Your task to perform on an android device: turn off improve location accuracy Image 0: 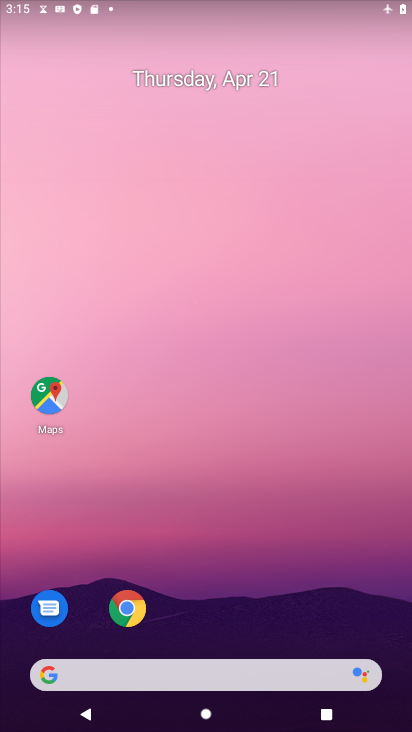
Step 0: drag from (304, 630) to (177, 82)
Your task to perform on an android device: turn off improve location accuracy Image 1: 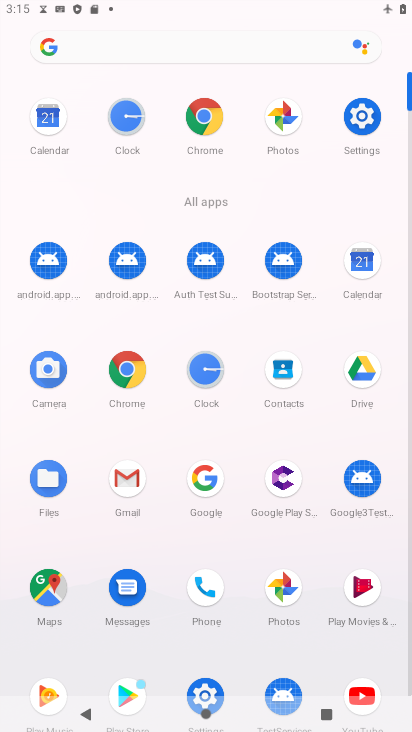
Step 1: click (366, 137)
Your task to perform on an android device: turn off improve location accuracy Image 2: 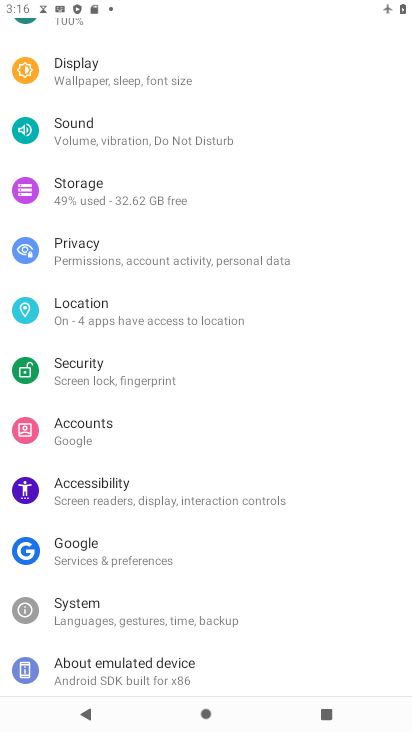
Step 2: click (158, 314)
Your task to perform on an android device: turn off improve location accuracy Image 3: 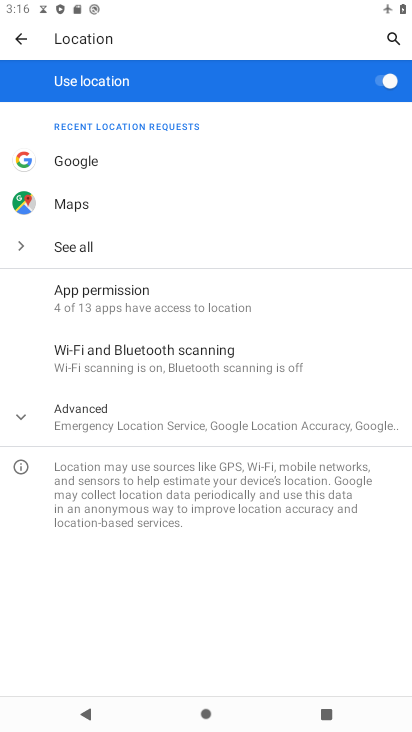
Step 3: click (171, 418)
Your task to perform on an android device: turn off improve location accuracy Image 4: 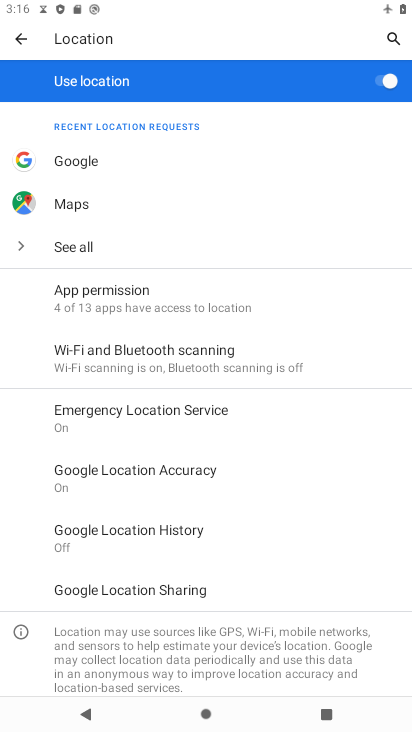
Step 4: click (193, 474)
Your task to perform on an android device: turn off improve location accuracy Image 5: 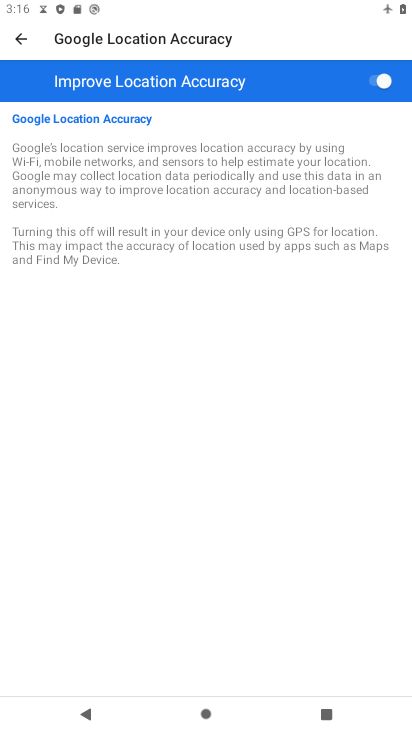
Step 5: click (384, 84)
Your task to perform on an android device: turn off improve location accuracy Image 6: 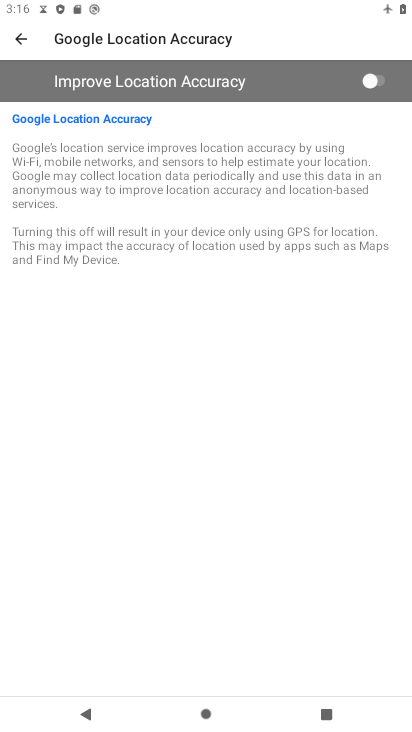
Step 6: task complete